Your task to perform on an android device: turn off priority inbox in the gmail app Image 0: 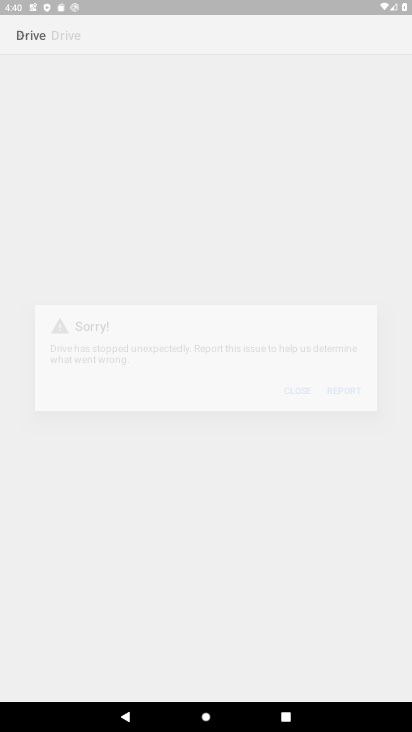
Step 0: press home button
Your task to perform on an android device: turn off priority inbox in the gmail app Image 1: 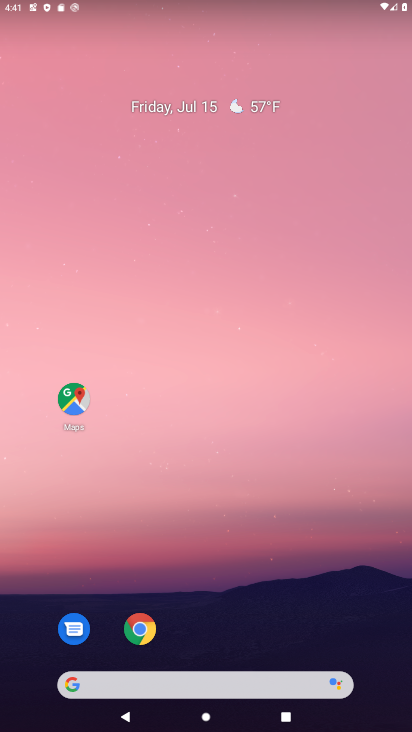
Step 1: drag from (200, 641) to (340, 0)
Your task to perform on an android device: turn off priority inbox in the gmail app Image 2: 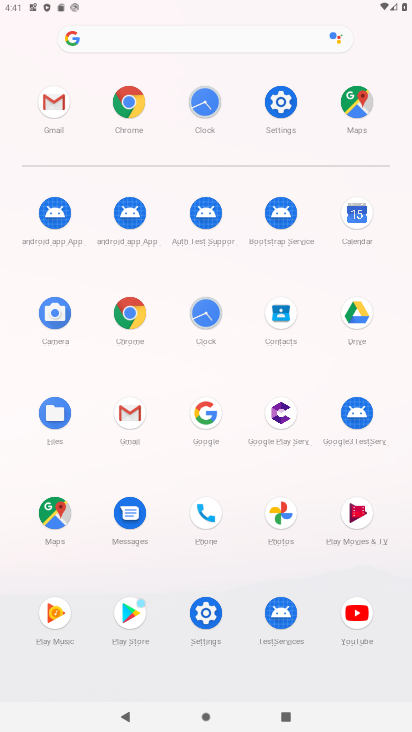
Step 2: click (48, 97)
Your task to perform on an android device: turn off priority inbox in the gmail app Image 3: 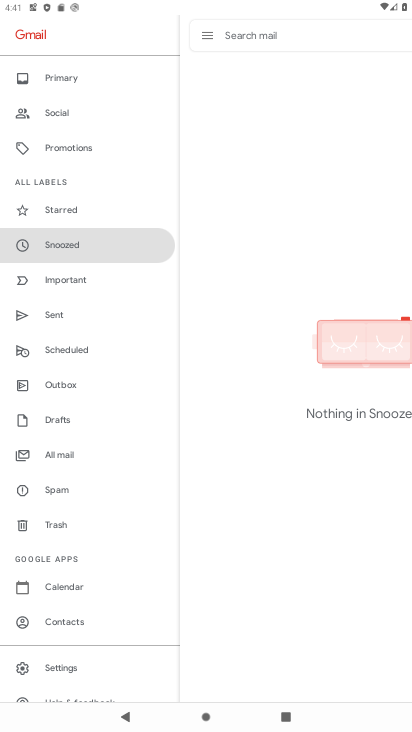
Step 3: click (70, 670)
Your task to perform on an android device: turn off priority inbox in the gmail app Image 4: 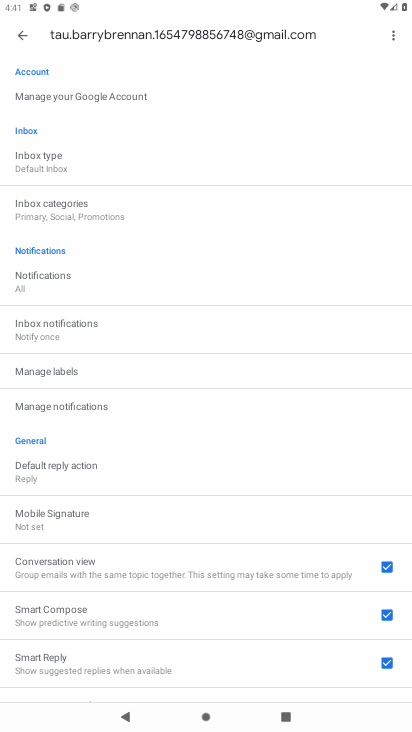
Step 4: click (35, 161)
Your task to perform on an android device: turn off priority inbox in the gmail app Image 5: 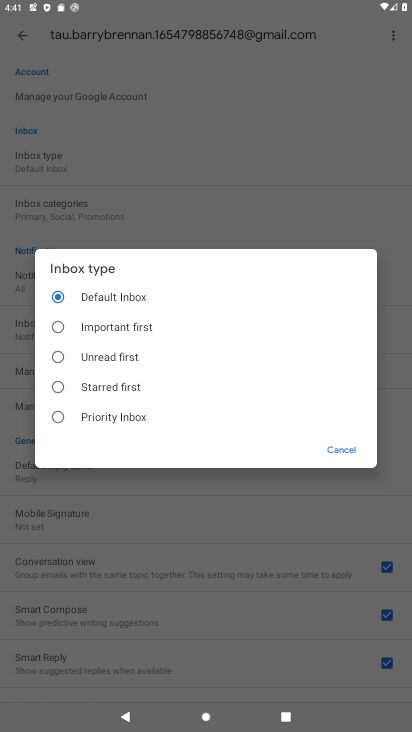
Step 5: task complete